Your task to perform on an android device: Open network settings Image 0: 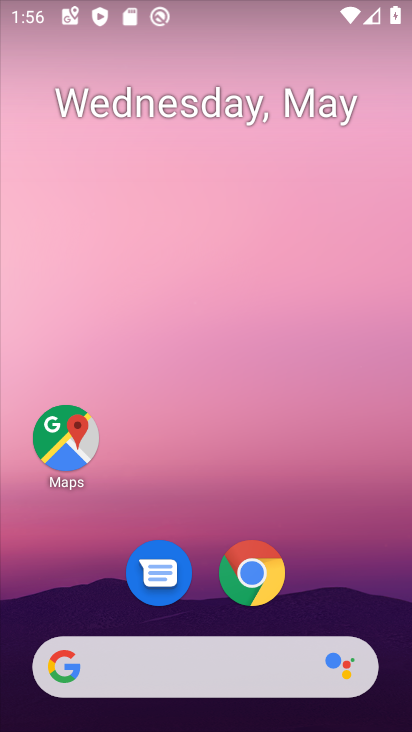
Step 0: drag from (347, 585) to (371, 9)
Your task to perform on an android device: Open network settings Image 1: 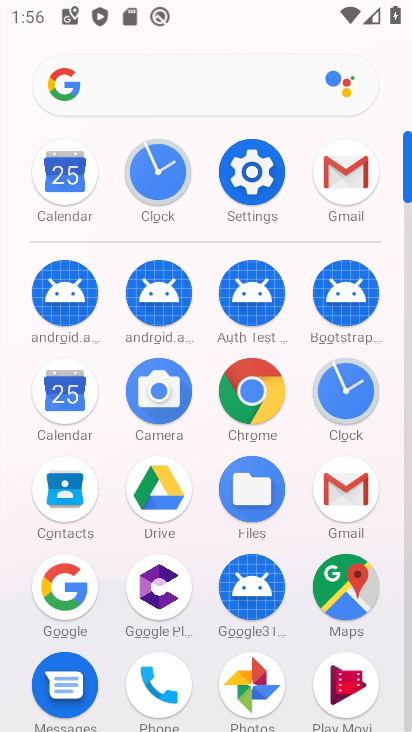
Step 1: click (246, 166)
Your task to perform on an android device: Open network settings Image 2: 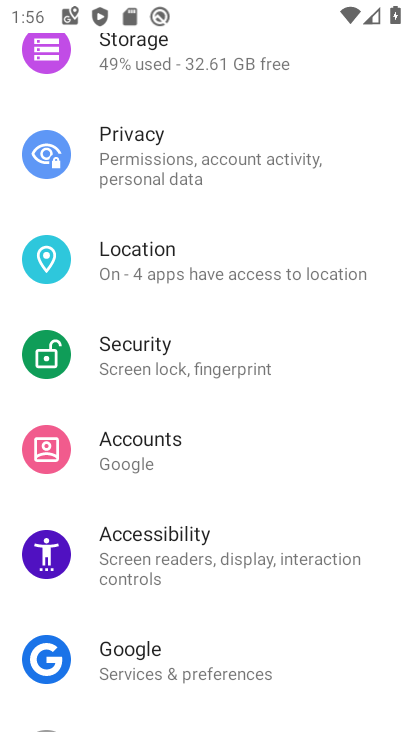
Step 2: drag from (246, 167) to (167, 510)
Your task to perform on an android device: Open network settings Image 3: 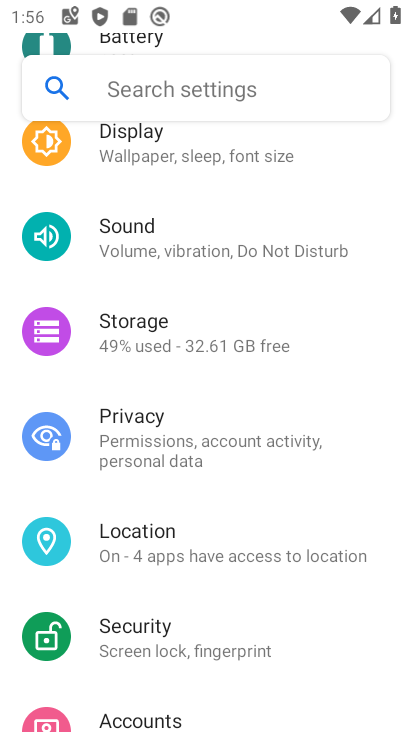
Step 3: drag from (157, 312) to (151, 650)
Your task to perform on an android device: Open network settings Image 4: 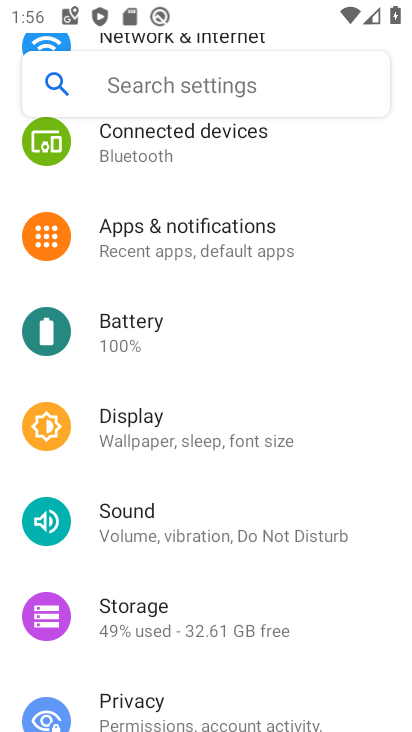
Step 4: drag from (203, 365) to (206, 659)
Your task to perform on an android device: Open network settings Image 5: 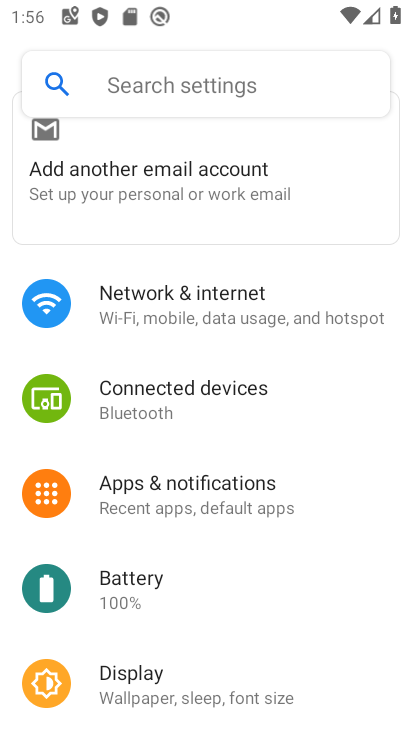
Step 5: click (288, 315)
Your task to perform on an android device: Open network settings Image 6: 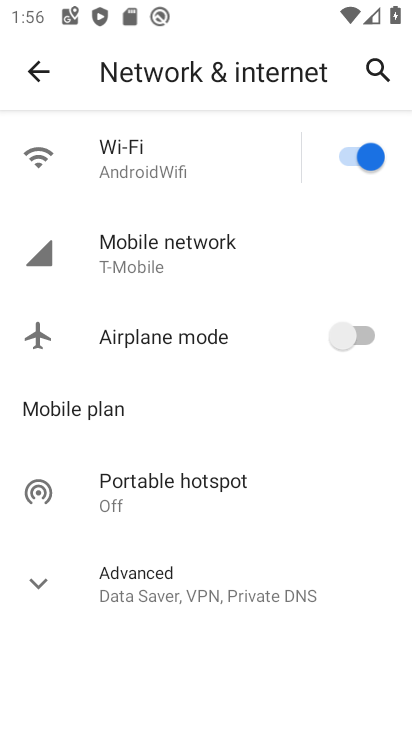
Step 6: click (142, 239)
Your task to perform on an android device: Open network settings Image 7: 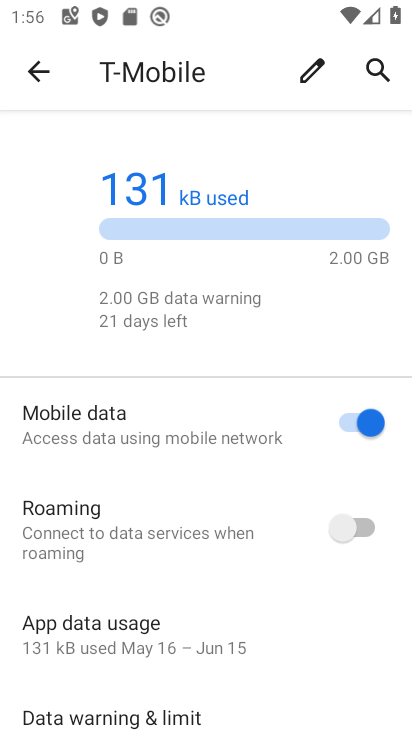
Step 7: task complete